Your task to perform on an android device: open app "Adobe Acrobat Reader" Image 0: 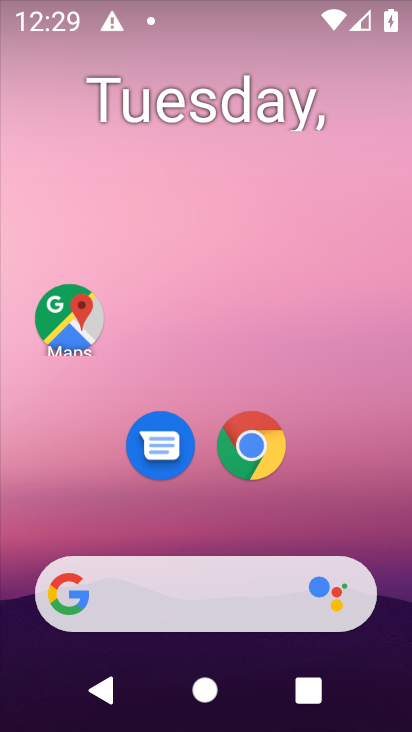
Step 0: drag from (332, 522) to (297, 9)
Your task to perform on an android device: open app "Adobe Acrobat Reader" Image 1: 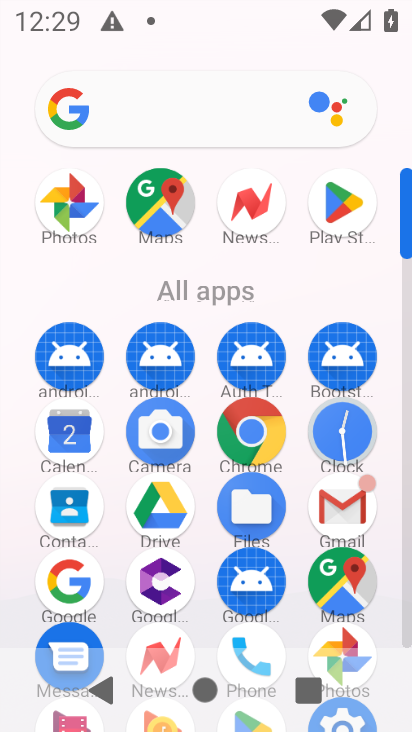
Step 1: click (331, 234)
Your task to perform on an android device: open app "Adobe Acrobat Reader" Image 2: 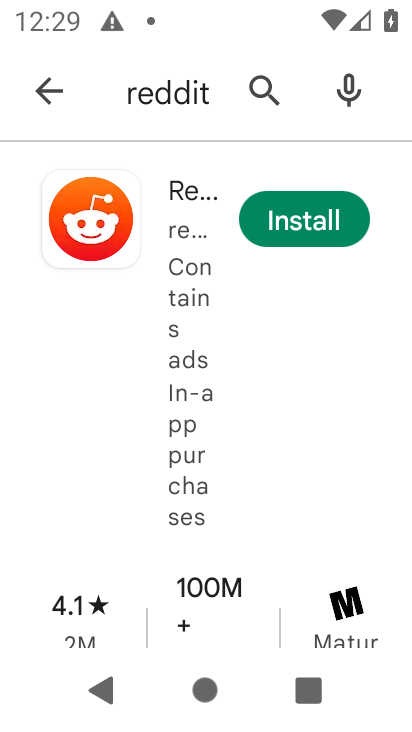
Step 2: click (261, 84)
Your task to perform on an android device: open app "Adobe Acrobat Reader" Image 3: 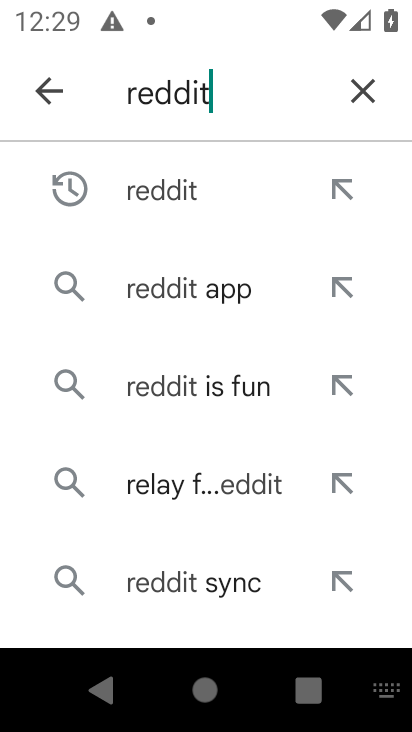
Step 3: click (373, 91)
Your task to perform on an android device: open app "Adobe Acrobat Reader" Image 4: 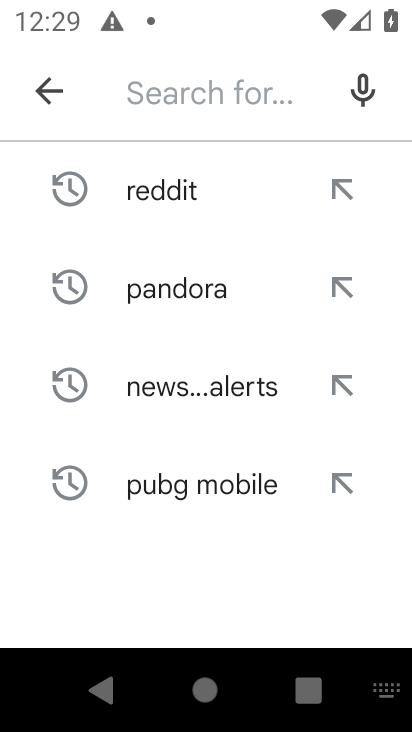
Step 4: type "adobe"
Your task to perform on an android device: open app "Adobe Acrobat Reader" Image 5: 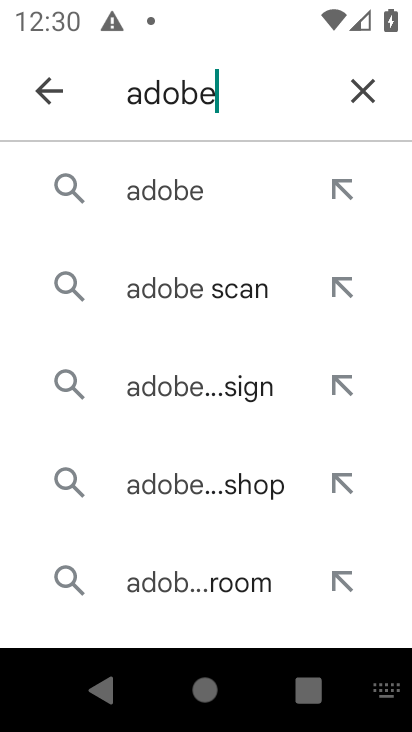
Step 5: click (214, 196)
Your task to perform on an android device: open app "Adobe Acrobat Reader" Image 6: 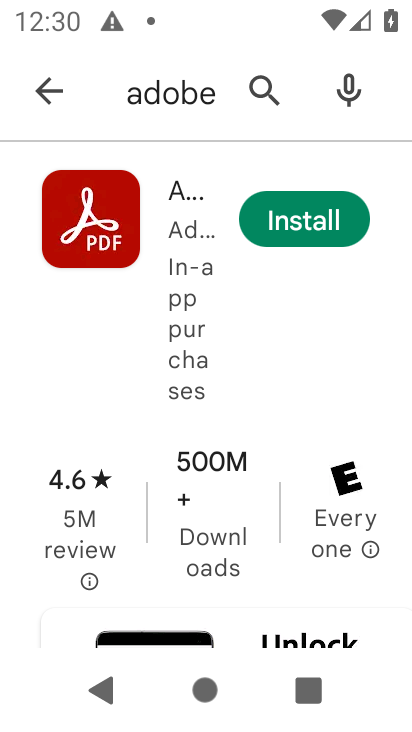
Step 6: click (186, 222)
Your task to perform on an android device: open app "Adobe Acrobat Reader" Image 7: 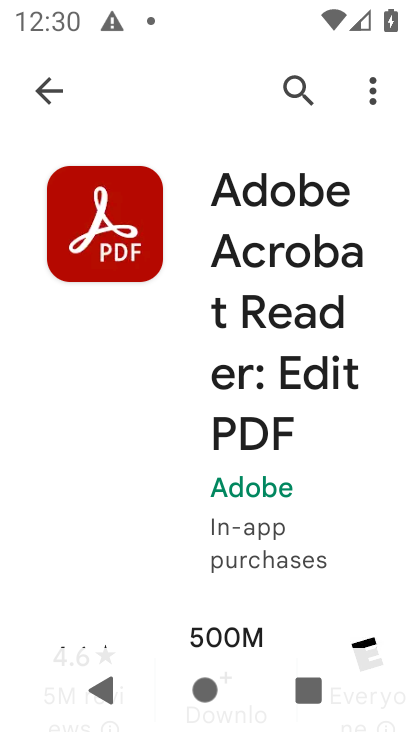
Step 7: task complete